Your task to perform on an android device: What's the weather going to be this weekend? Image 0: 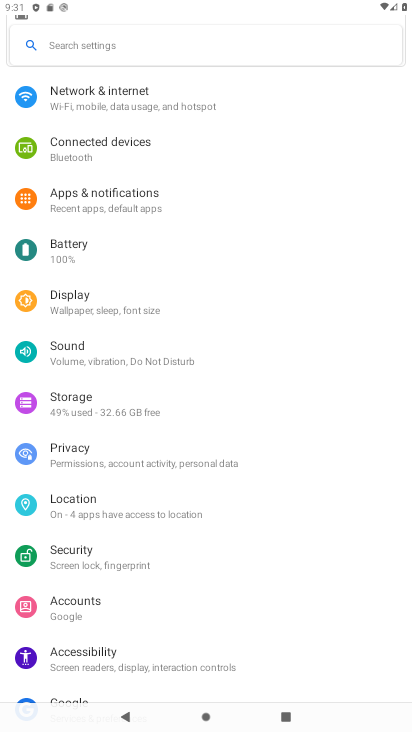
Step 0: press home button
Your task to perform on an android device: What's the weather going to be this weekend? Image 1: 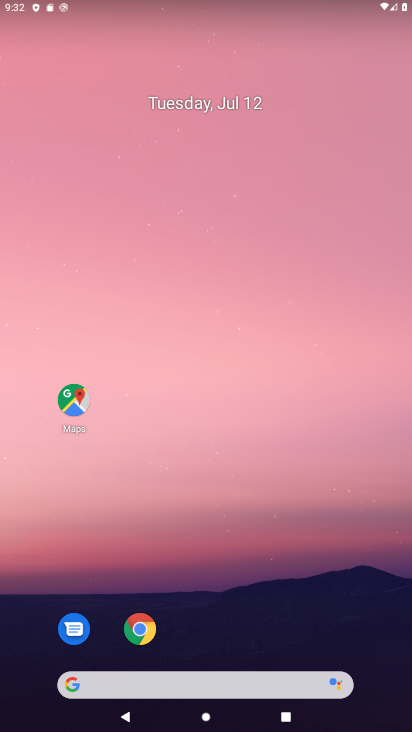
Step 1: drag from (253, 682) to (282, 65)
Your task to perform on an android device: What's the weather going to be this weekend? Image 2: 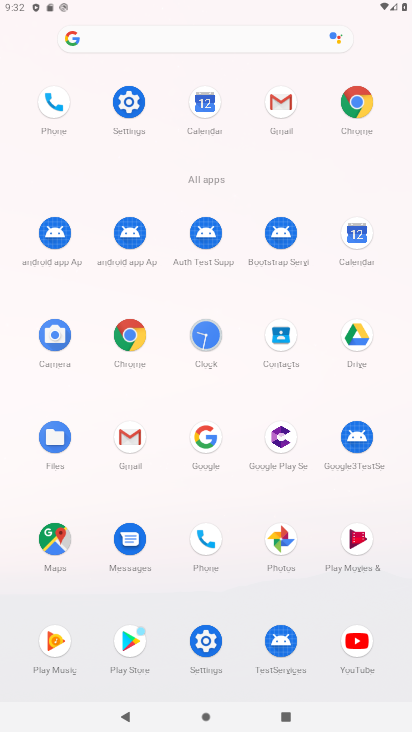
Step 2: click (122, 372)
Your task to perform on an android device: What's the weather going to be this weekend? Image 3: 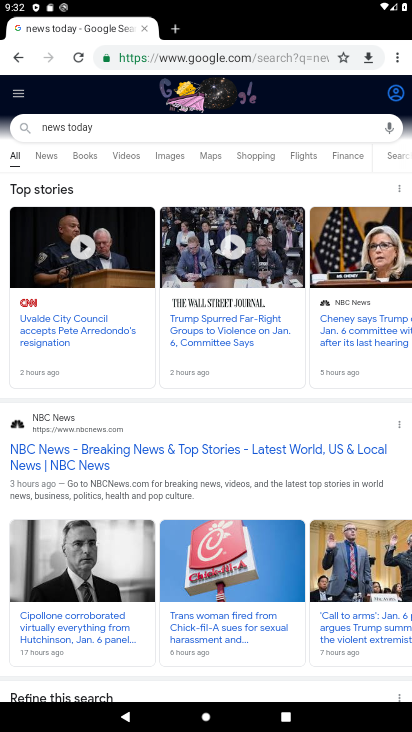
Step 3: click (210, 63)
Your task to perform on an android device: What's the weather going to be this weekend? Image 4: 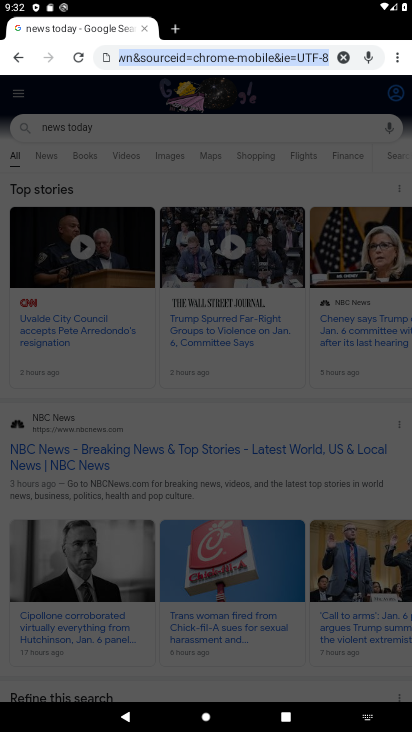
Step 4: type "weather going to be this weekend"
Your task to perform on an android device: What's the weather going to be this weekend? Image 5: 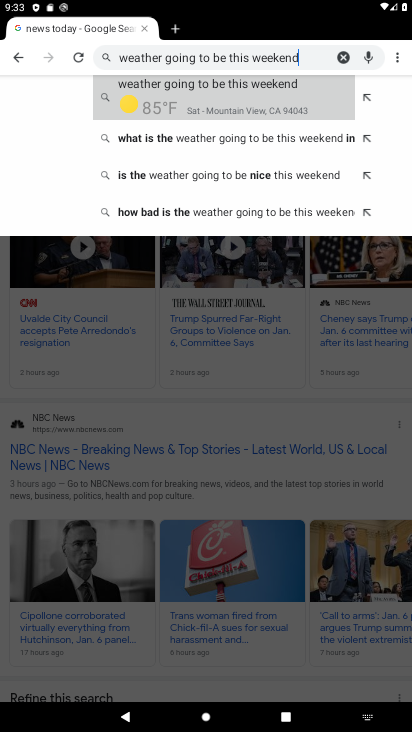
Step 5: click (270, 103)
Your task to perform on an android device: What's the weather going to be this weekend? Image 6: 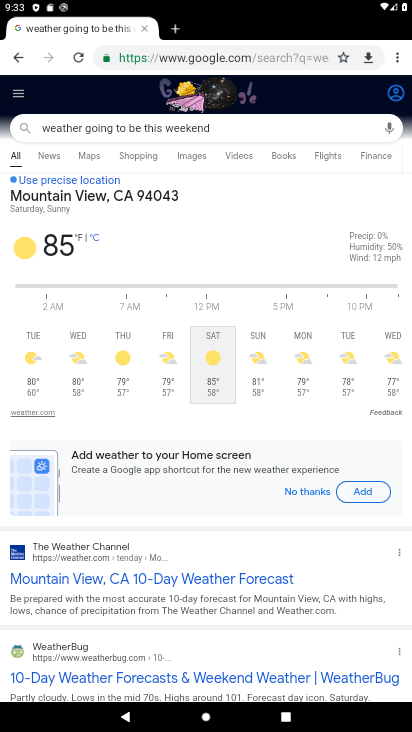
Step 6: task complete